Your task to perform on an android device: Open Chrome and go to settings Image 0: 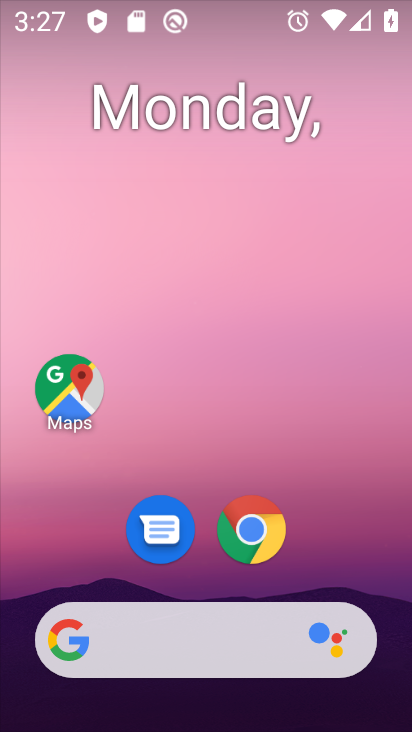
Step 0: click (257, 538)
Your task to perform on an android device: Open Chrome and go to settings Image 1: 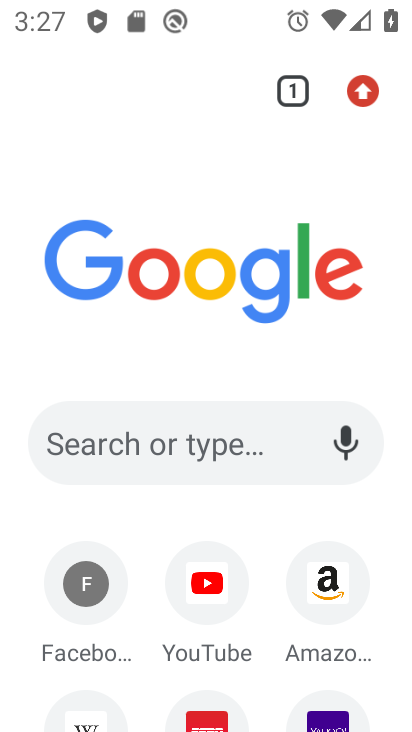
Step 1: click (352, 97)
Your task to perform on an android device: Open Chrome and go to settings Image 2: 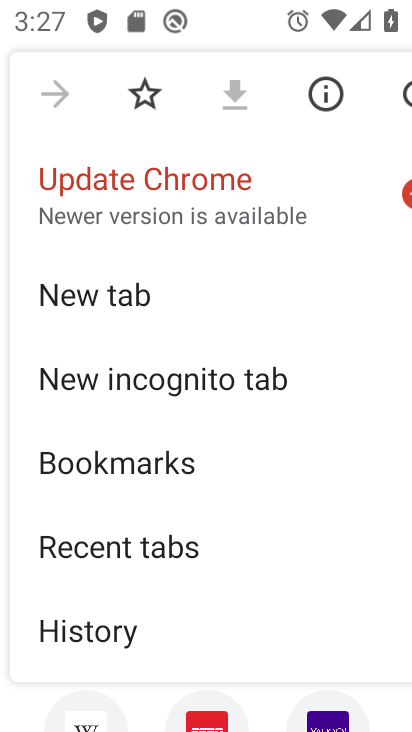
Step 2: drag from (126, 595) to (256, 66)
Your task to perform on an android device: Open Chrome and go to settings Image 3: 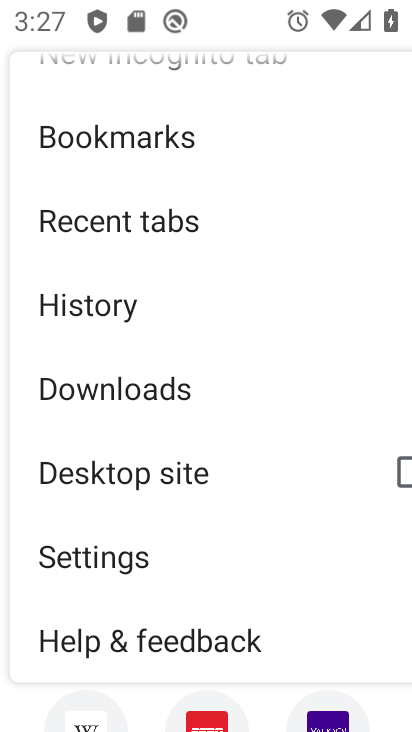
Step 3: click (123, 552)
Your task to perform on an android device: Open Chrome and go to settings Image 4: 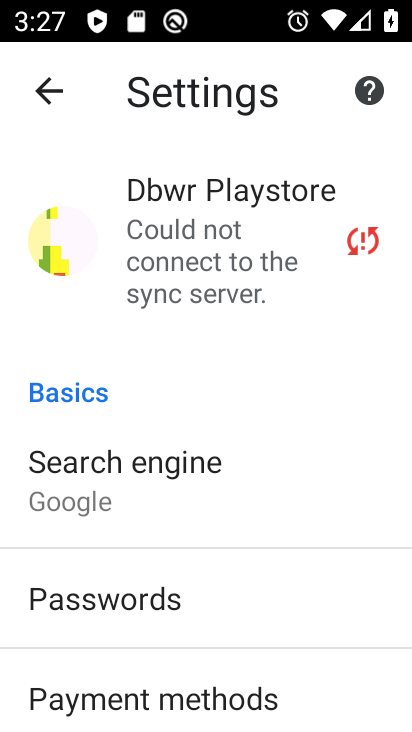
Step 4: task complete